Your task to perform on an android device: empty trash in google photos Image 0: 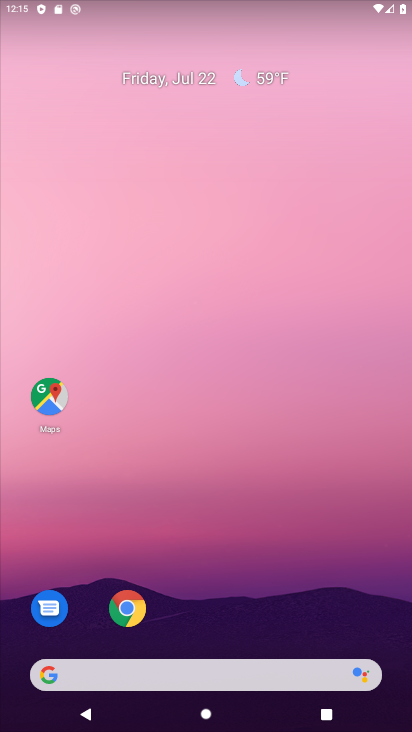
Step 0: drag from (236, 623) to (259, 18)
Your task to perform on an android device: empty trash in google photos Image 1: 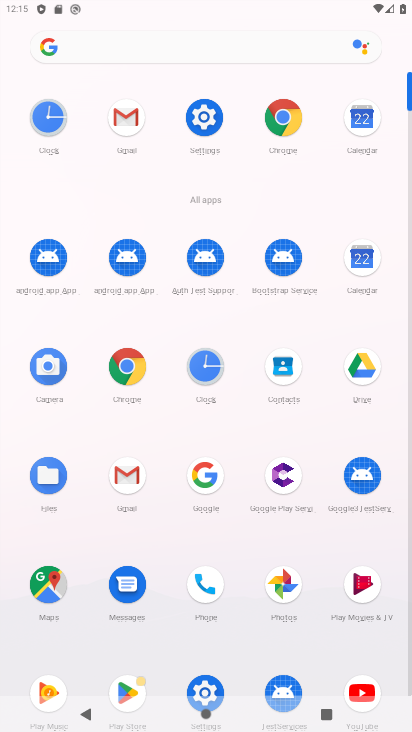
Step 1: click (288, 597)
Your task to perform on an android device: empty trash in google photos Image 2: 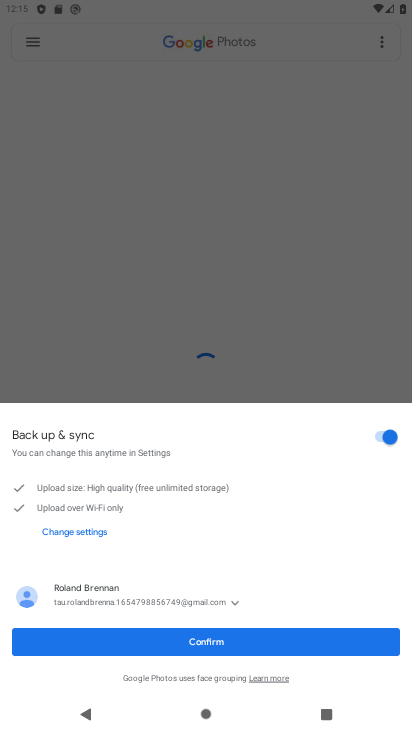
Step 2: click (223, 637)
Your task to perform on an android device: empty trash in google photos Image 3: 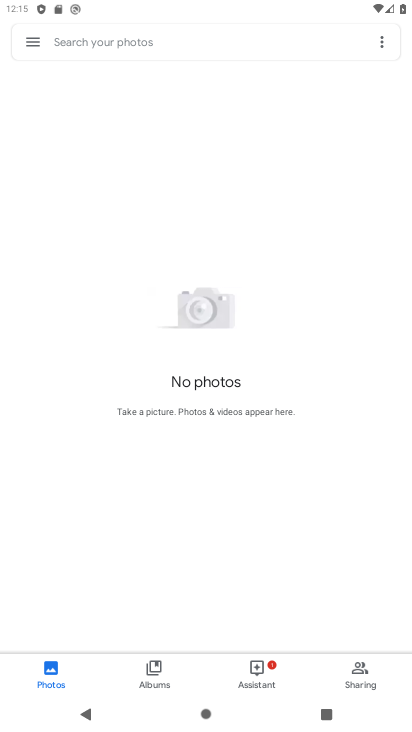
Step 3: click (9, 37)
Your task to perform on an android device: empty trash in google photos Image 4: 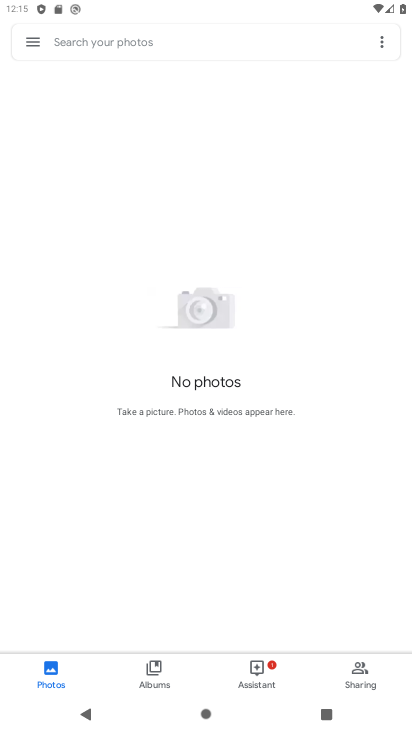
Step 4: click (25, 42)
Your task to perform on an android device: empty trash in google photos Image 5: 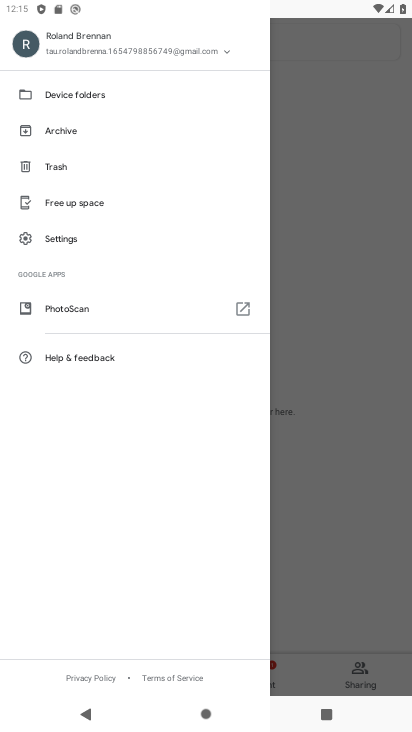
Step 5: click (56, 173)
Your task to perform on an android device: empty trash in google photos Image 6: 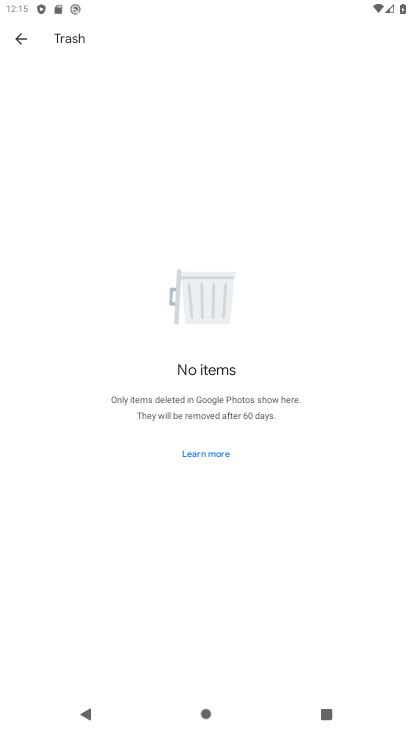
Step 6: task complete